Your task to perform on an android device: turn on priority inbox in the gmail app Image 0: 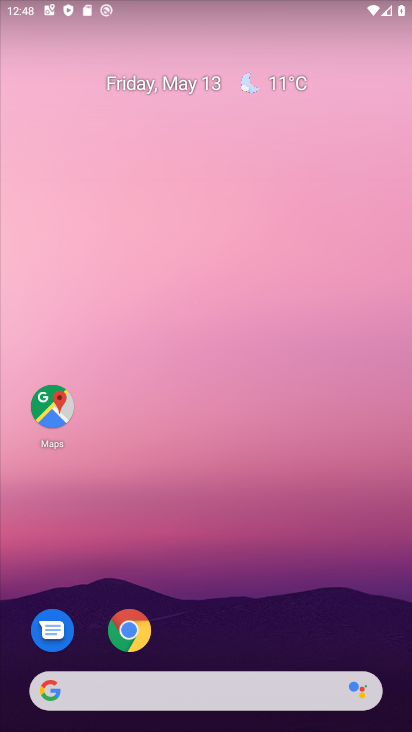
Step 0: drag from (322, 599) to (337, 10)
Your task to perform on an android device: turn on priority inbox in the gmail app Image 1: 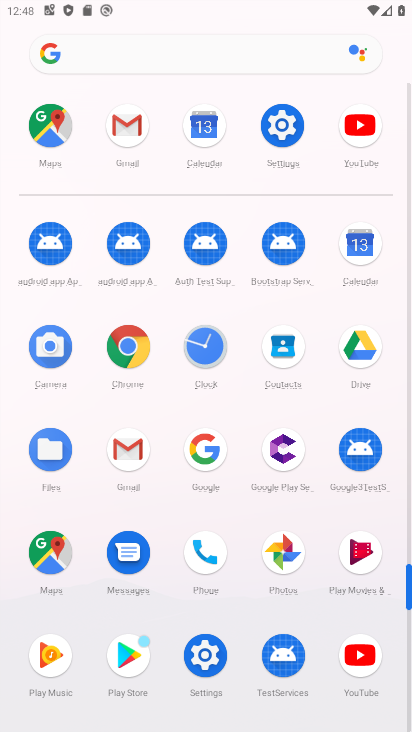
Step 1: click (114, 133)
Your task to perform on an android device: turn on priority inbox in the gmail app Image 2: 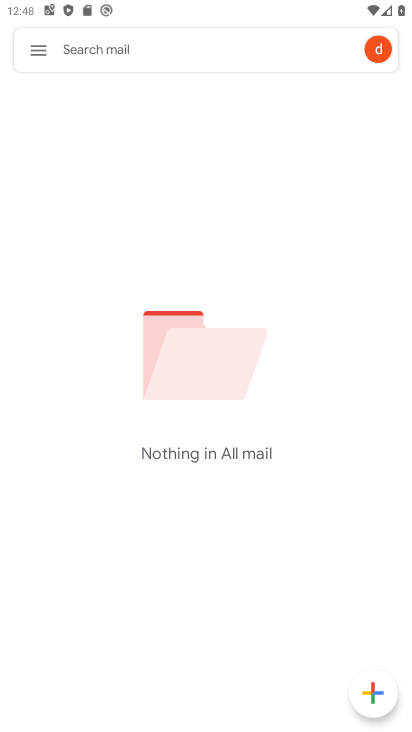
Step 2: click (38, 54)
Your task to perform on an android device: turn on priority inbox in the gmail app Image 3: 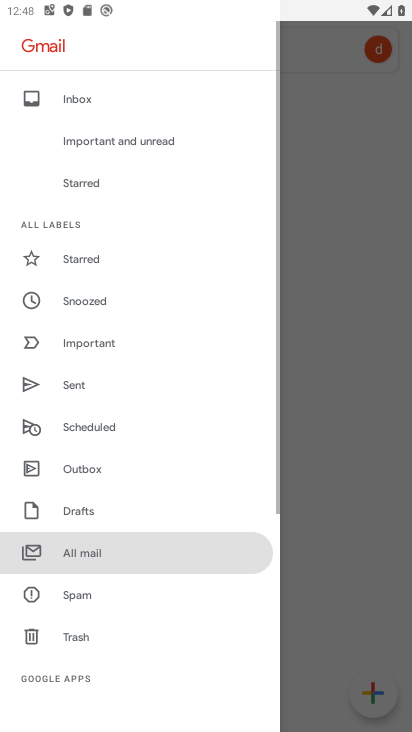
Step 3: drag from (149, 636) to (164, 127)
Your task to perform on an android device: turn on priority inbox in the gmail app Image 4: 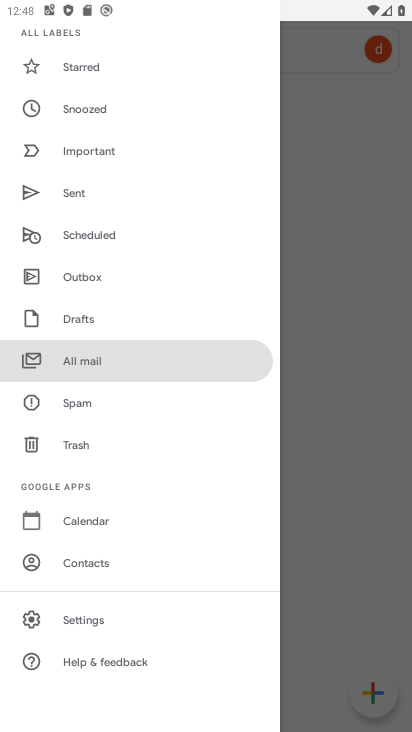
Step 4: click (77, 617)
Your task to perform on an android device: turn on priority inbox in the gmail app Image 5: 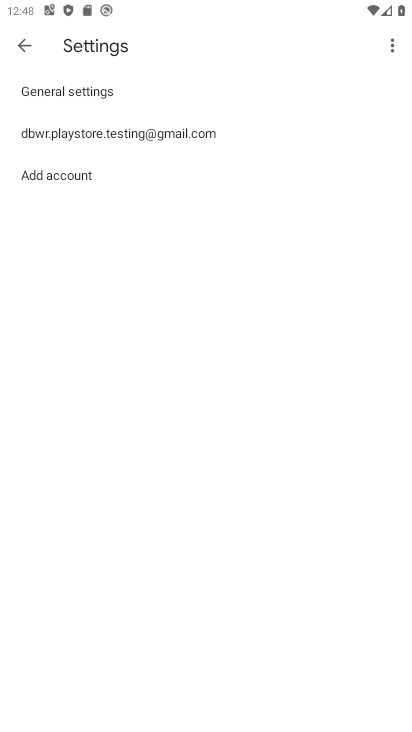
Step 5: click (63, 139)
Your task to perform on an android device: turn on priority inbox in the gmail app Image 6: 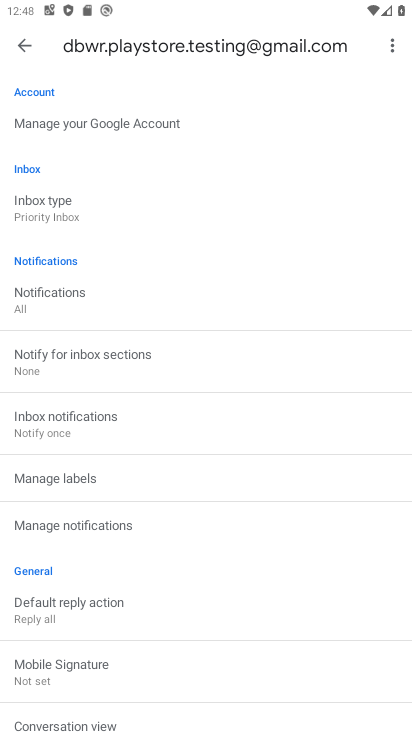
Step 6: drag from (154, 587) to (164, 226)
Your task to perform on an android device: turn on priority inbox in the gmail app Image 7: 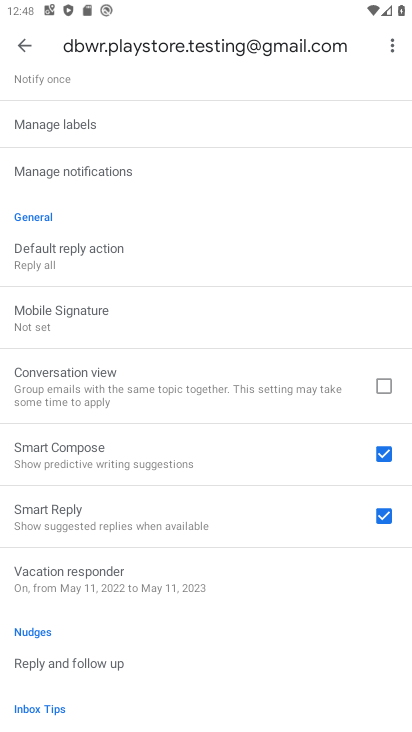
Step 7: drag from (151, 206) to (177, 508)
Your task to perform on an android device: turn on priority inbox in the gmail app Image 8: 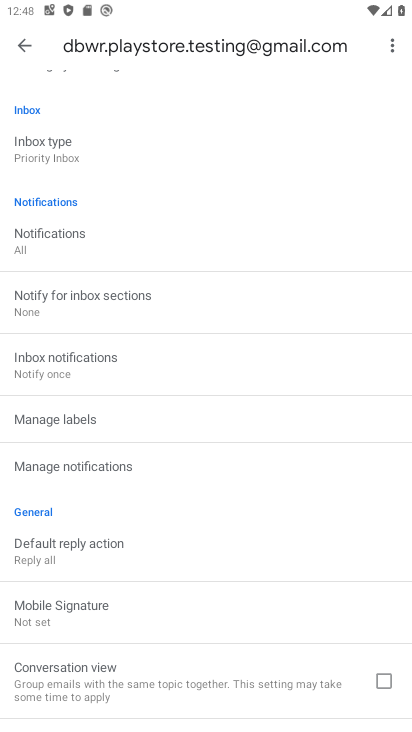
Step 8: click (48, 158)
Your task to perform on an android device: turn on priority inbox in the gmail app Image 9: 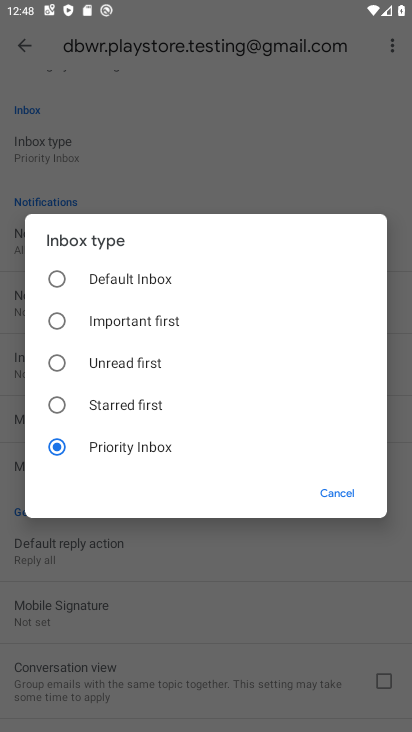
Step 9: task complete